Your task to perform on an android device: turn on wifi Image 0: 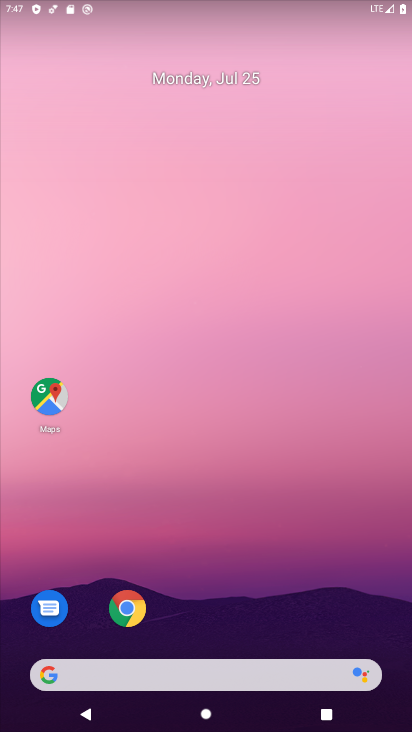
Step 0: drag from (182, 621) to (189, 52)
Your task to perform on an android device: turn on wifi Image 1: 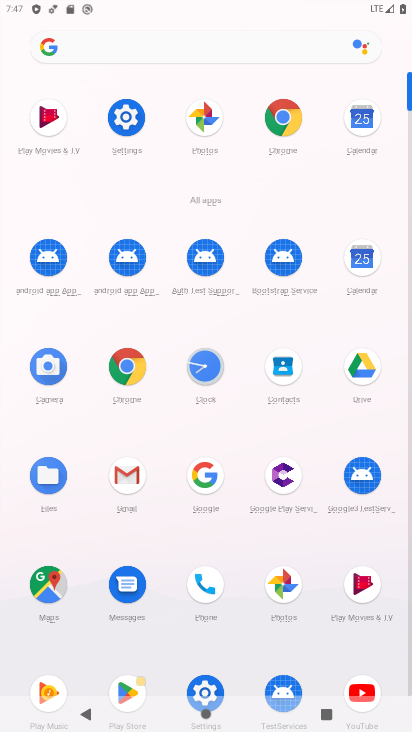
Step 1: click (199, 689)
Your task to perform on an android device: turn on wifi Image 2: 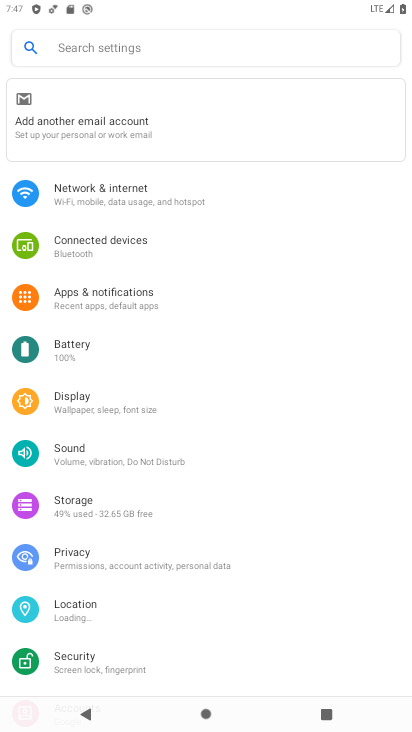
Step 2: click (103, 182)
Your task to perform on an android device: turn on wifi Image 3: 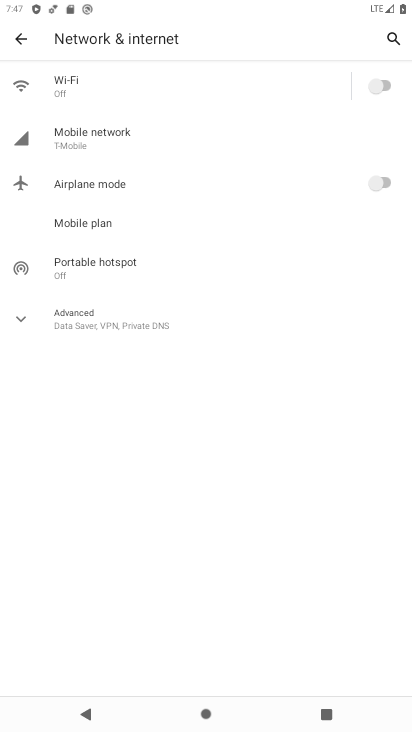
Step 3: click (127, 82)
Your task to perform on an android device: turn on wifi Image 4: 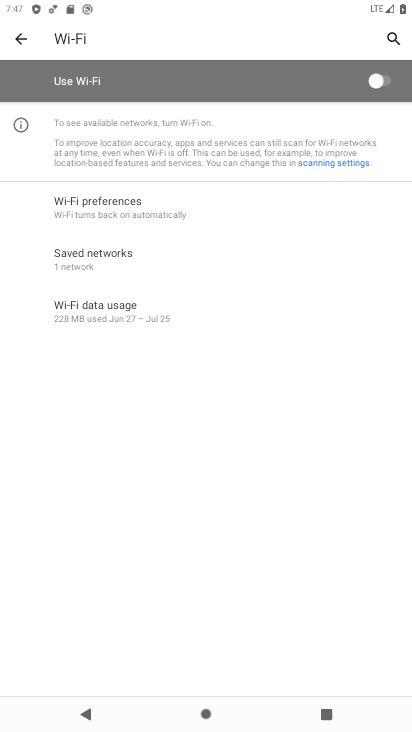
Step 4: click (309, 97)
Your task to perform on an android device: turn on wifi Image 5: 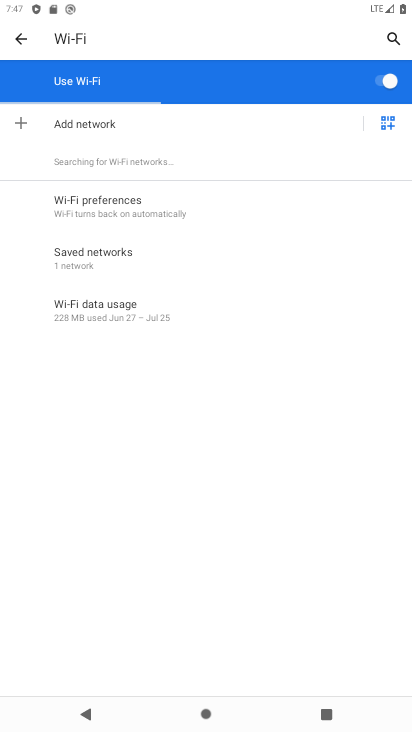
Step 5: task complete